Your task to perform on an android device: Search for Italian restaurants on Maps Image 0: 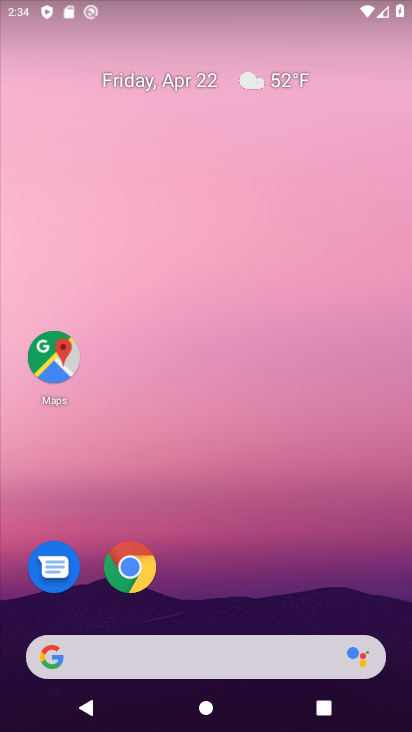
Step 0: click (52, 351)
Your task to perform on an android device: Search for Italian restaurants on Maps Image 1: 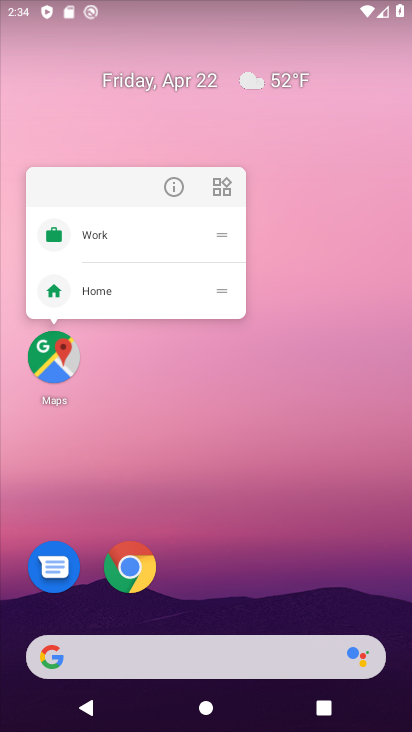
Step 1: click (52, 344)
Your task to perform on an android device: Search for Italian restaurants on Maps Image 2: 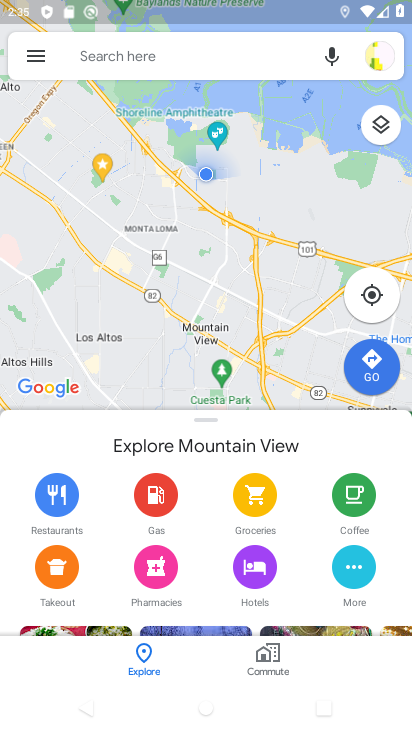
Step 2: click (177, 61)
Your task to perform on an android device: Search for Italian restaurants on Maps Image 3: 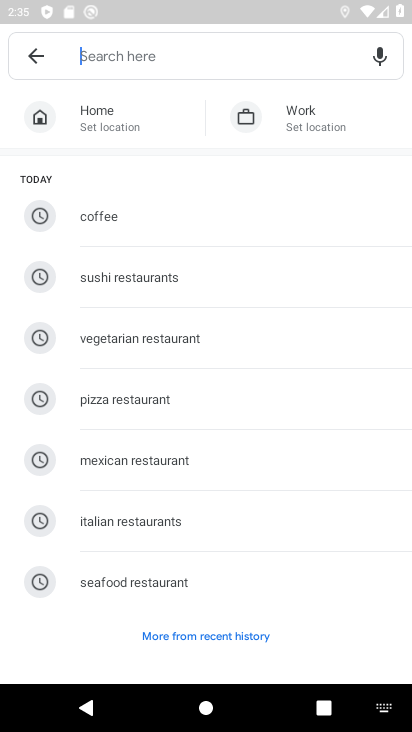
Step 3: click (146, 514)
Your task to perform on an android device: Search for Italian restaurants on Maps Image 4: 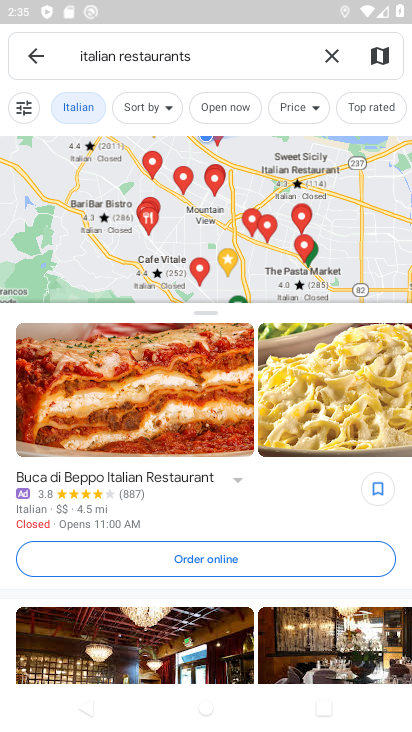
Step 4: task complete